Your task to perform on an android device: turn off sleep mode Image 0: 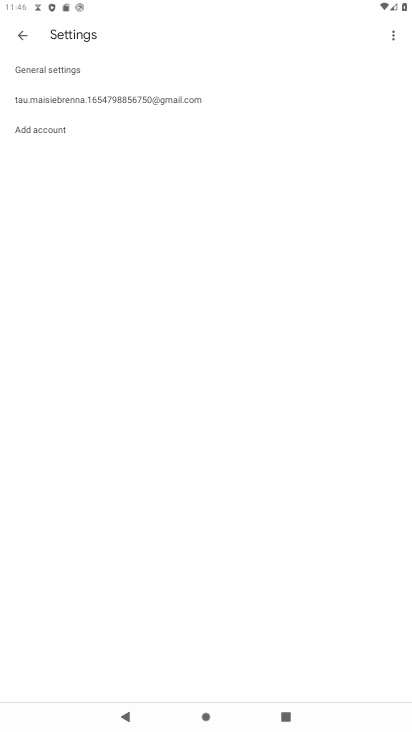
Step 0: press home button
Your task to perform on an android device: turn off sleep mode Image 1: 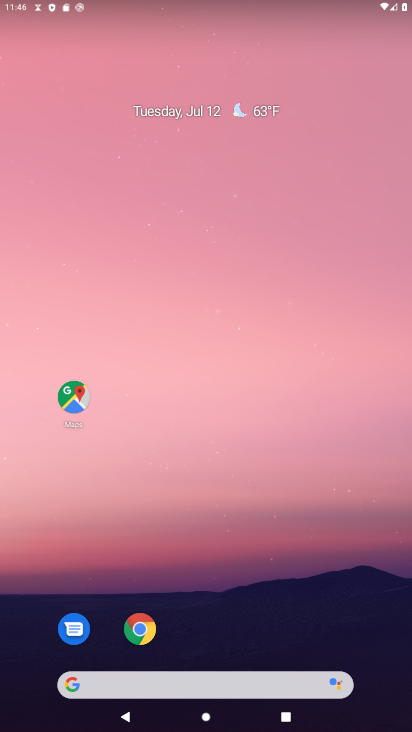
Step 1: drag from (395, 515) to (73, 5)
Your task to perform on an android device: turn off sleep mode Image 2: 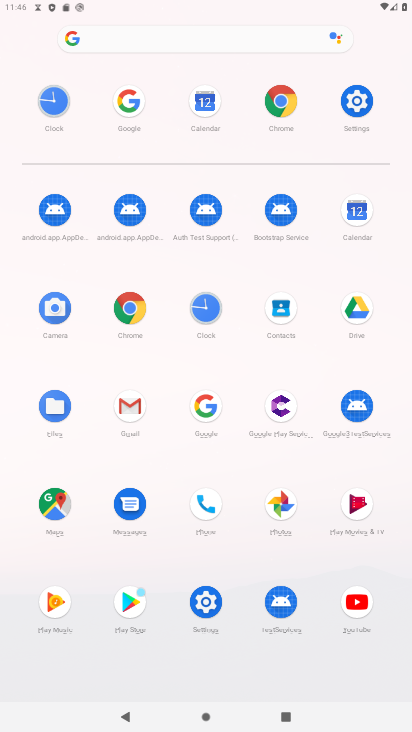
Step 2: click (366, 88)
Your task to perform on an android device: turn off sleep mode Image 3: 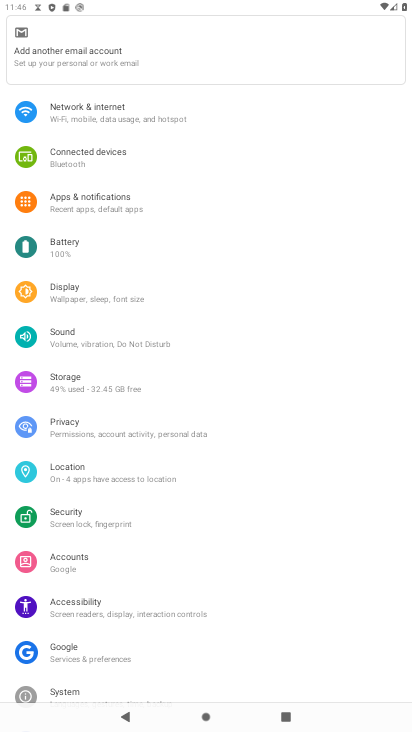
Step 3: click (78, 311)
Your task to perform on an android device: turn off sleep mode Image 4: 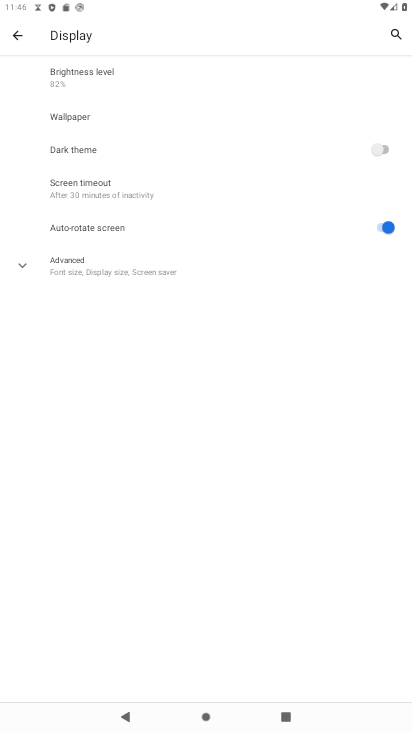
Step 4: task complete